Your task to perform on an android device: toggle improve location accuracy Image 0: 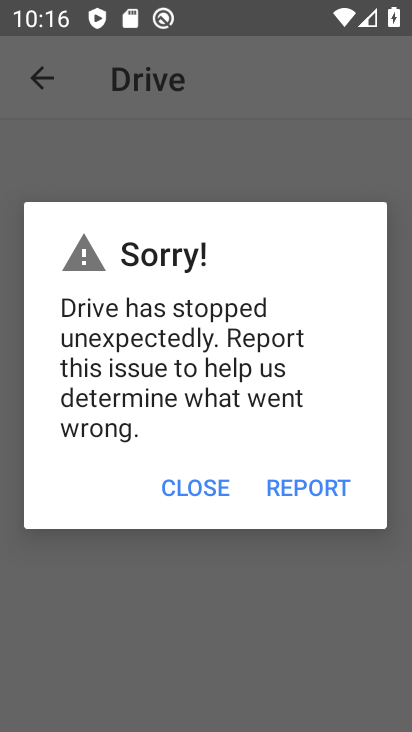
Step 0: press home button
Your task to perform on an android device: toggle improve location accuracy Image 1: 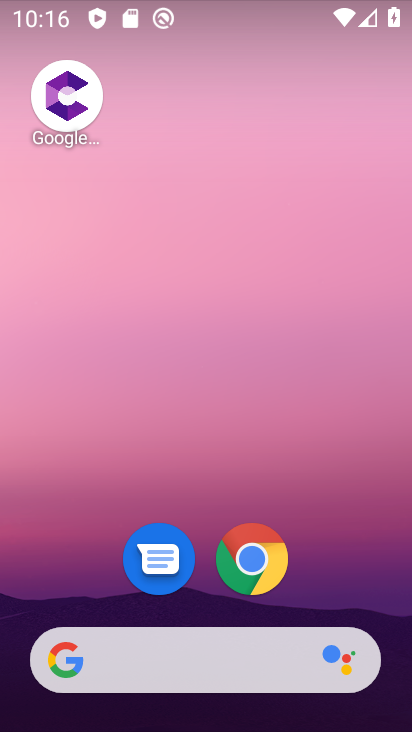
Step 1: drag from (187, 600) to (241, 260)
Your task to perform on an android device: toggle improve location accuracy Image 2: 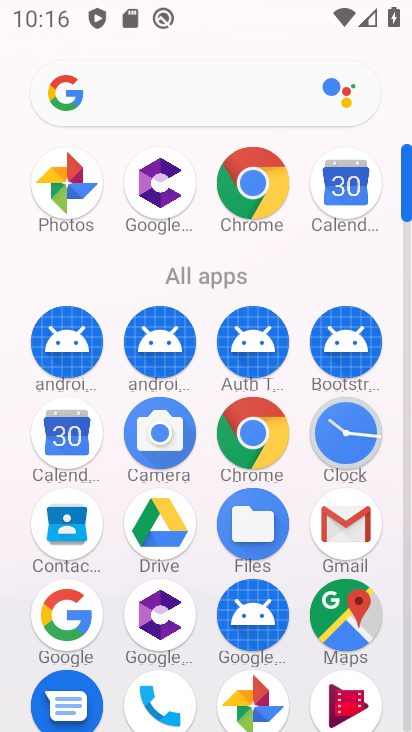
Step 2: drag from (206, 560) to (222, 128)
Your task to perform on an android device: toggle improve location accuracy Image 3: 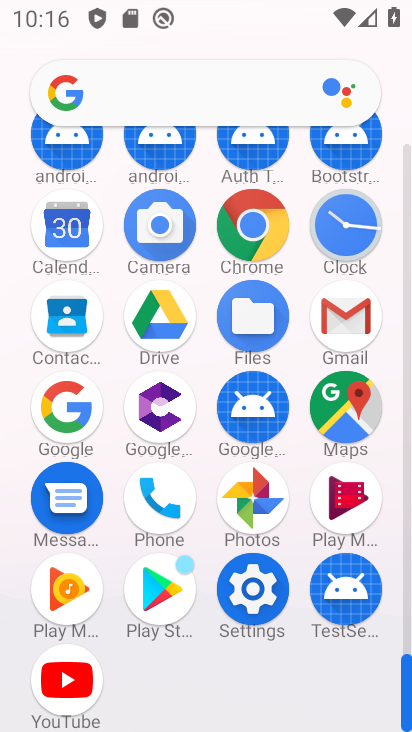
Step 3: click (251, 589)
Your task to perform on an android device: toggle improve location accuracy Image 4: 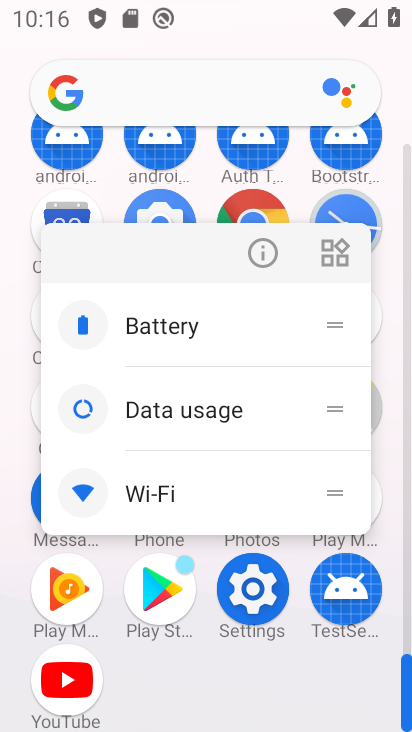
Step 4: click (252, 588)
Your task to perform on an android device: toggle improve location accuracy Image 5: 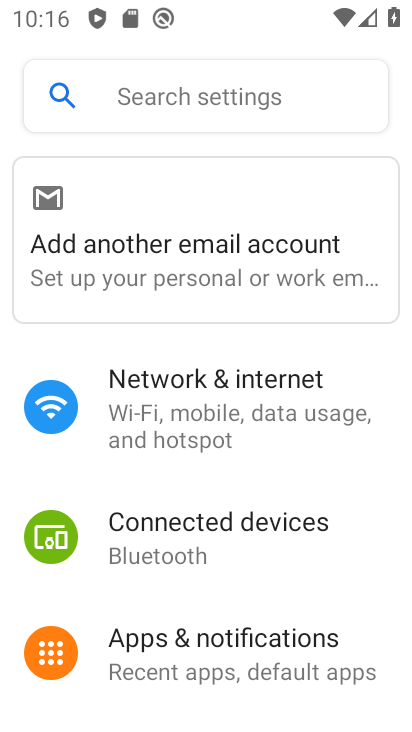
Step 5: drag from (247, 560) to (301, 164)
Your task to perform on an android device: toggle improve location accuracy Image 6: 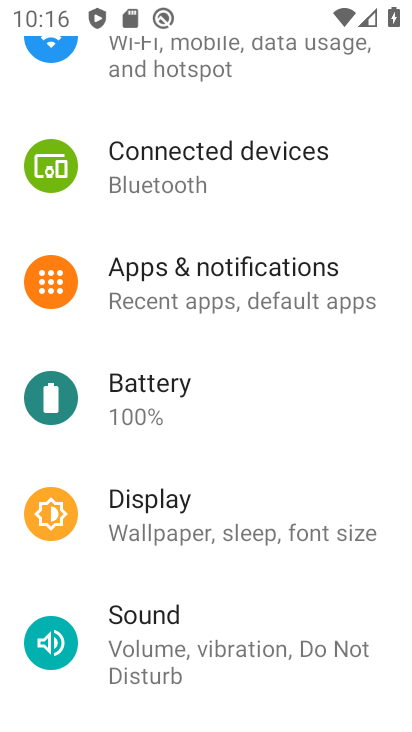
Step 6: drag from (244, 557) to (289, 316)
Your task to perform on an android device: toggle improve location accuracy Image 7: 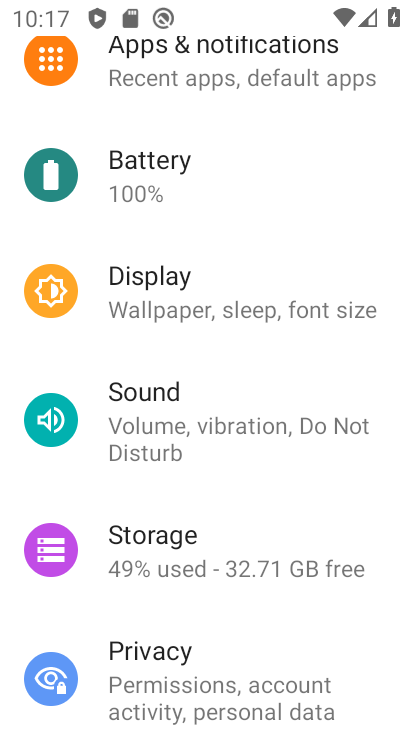
Step 7: drag from (223, 630) to (257, 426)
Your task to perform on an android device: toggle improve location accuracy Image 8: 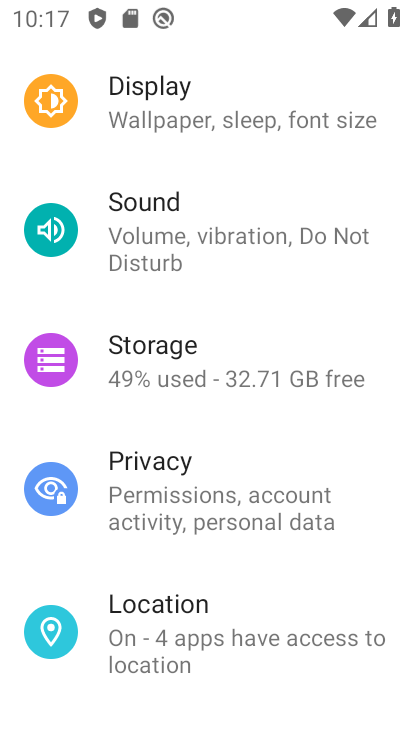
Step 8: click (203, 618)
Your task to perform on an android device: toggle improve location accuracy Image 9: 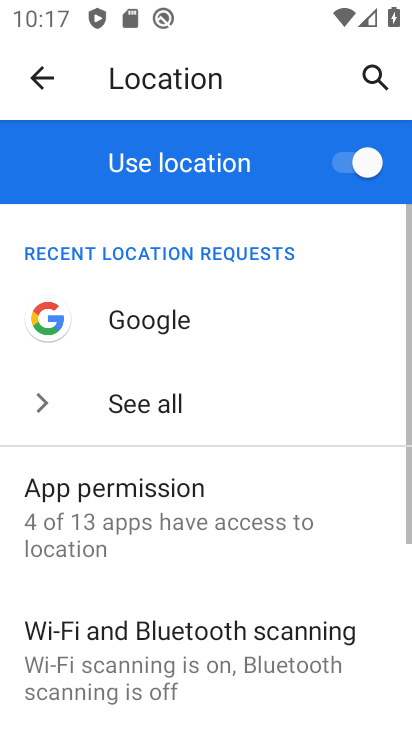
Step 9: drag from (167, 632) to (236, 91)
Your task to perform on an android device: toggle improve location accuracy Image 10: 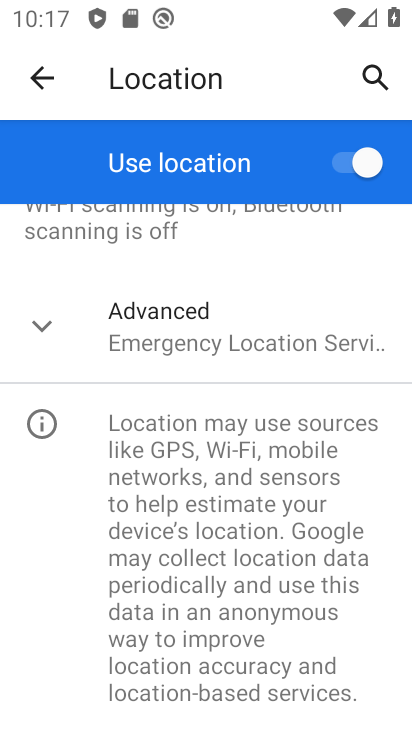
Step 10: click (118, 341)
Your task to perform on an android device: toggle improve location accuracy Image 11: 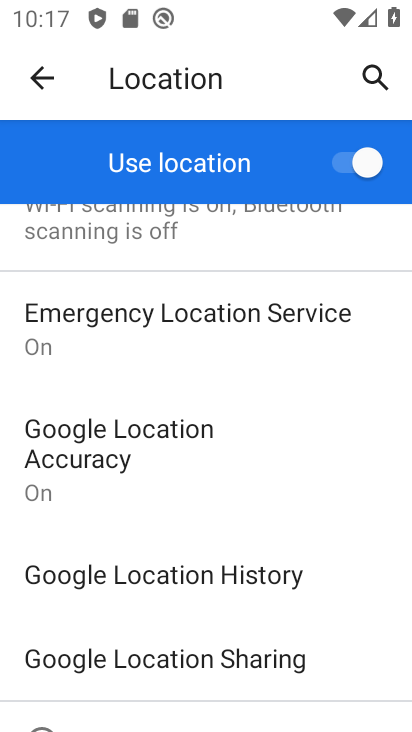
Step 11: drag from (160, 602) to (172, 405)
Your task to perform on an android device: toggle improve location accuracy Image 12: 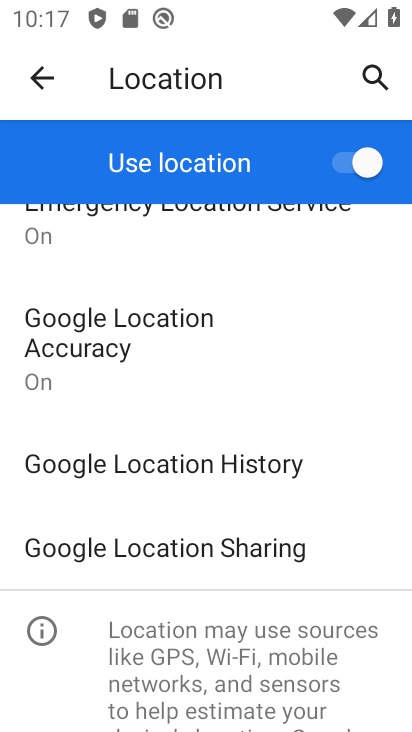
Step 12: click (107, 346)
Your task to perform on an android device: toggle improve location accuracy Image 13: 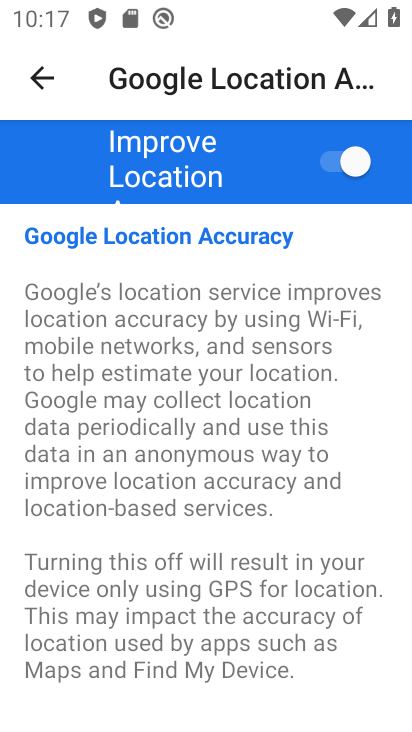
Step 13: click (337, 166)
Your task to perform on an android device: toggle improve location accuracy Image 14: 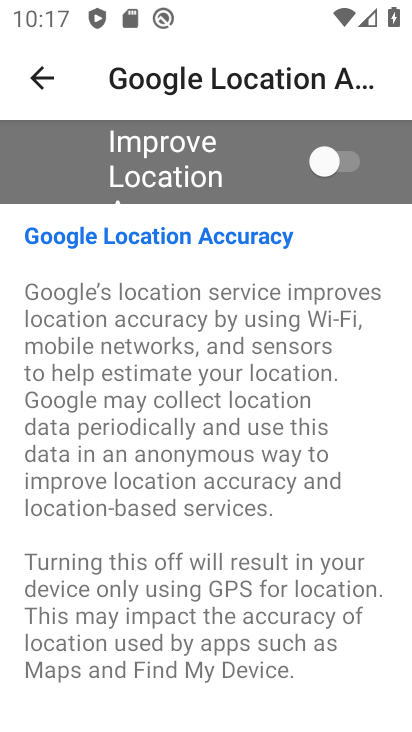
Step 14: task complete